Your task to perform on an android device: Open Amazon Image 0: 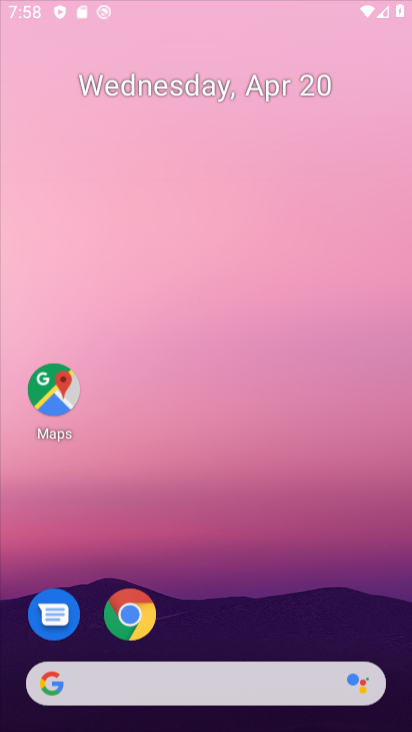
Step 0: click (287, 57)
Your task to perform on an android device: Open Amazon Image 1: 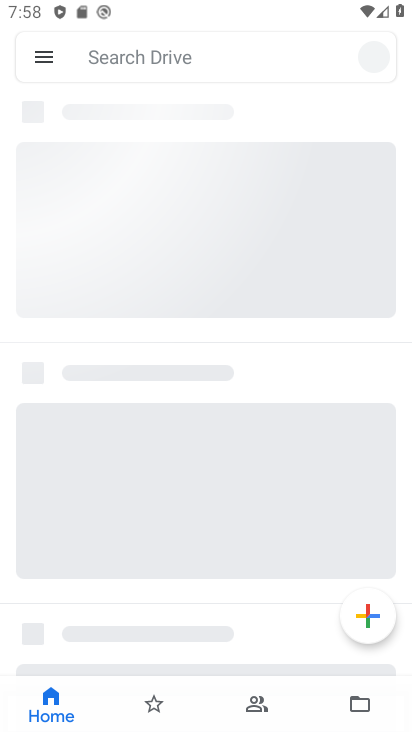
Step 1: press home button
Your task to perform on an android device: Open Amazon Image 2: 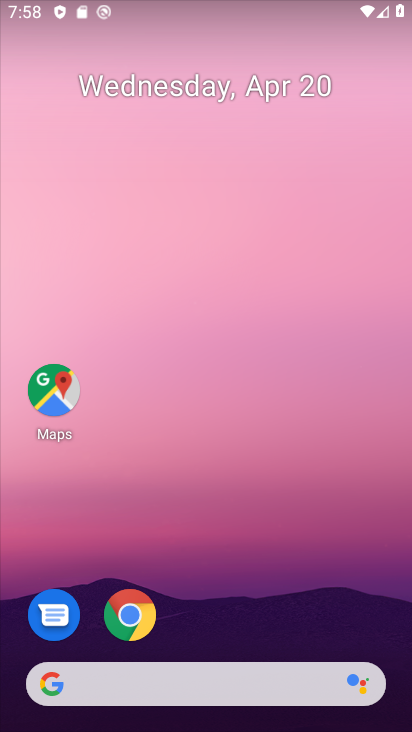
Step 2: click (133, 611)
Your task to perform on an android device: Open Amazon Image 3: 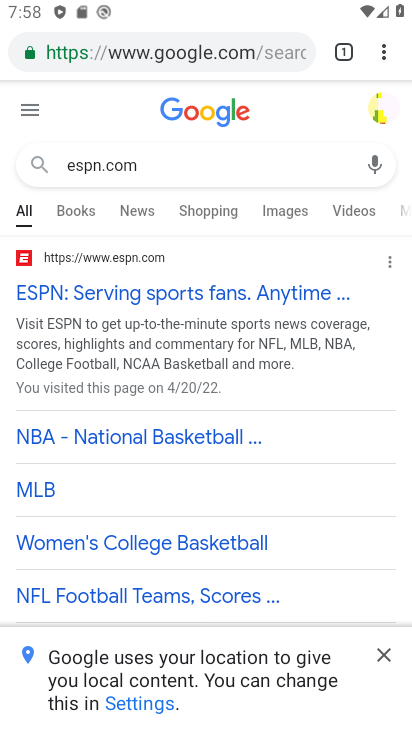
Step 3: click (297, 51)
Your task to perform on an android device: Open Amazon Image 4: 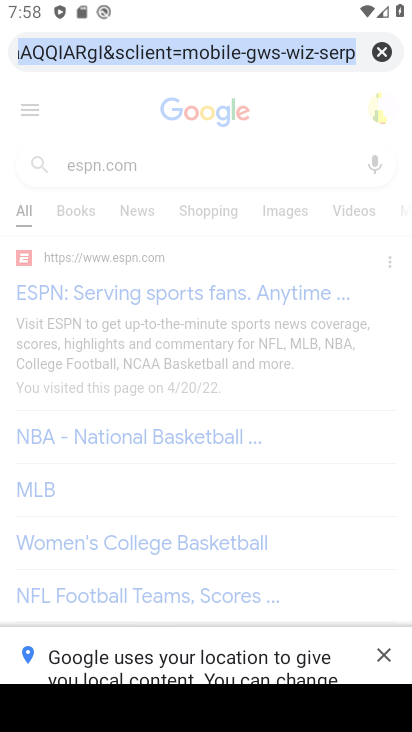
Step 4: click (378, 57)
Your task to perform on an android device: Open Amazon Image 5: 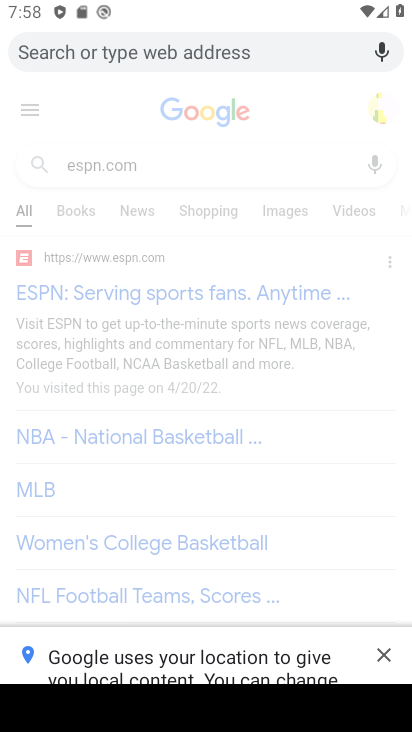
Step 5: click (344, 47)
Your task to perform on an android device: Open Amazon Image 6: 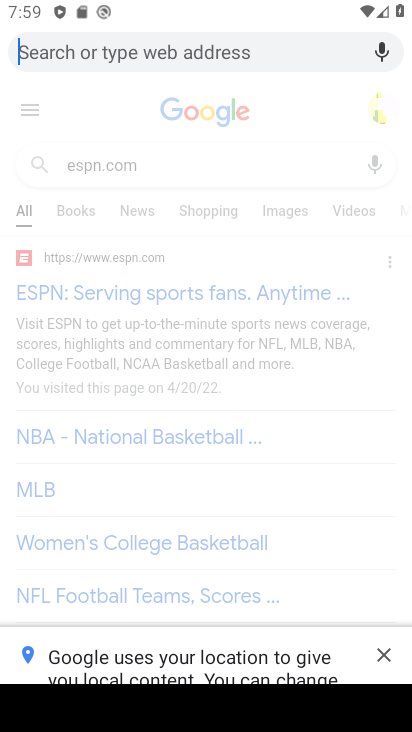
Step 6: type "Amazon"
Your task to perform on an android device: Open Amazon Image 7: 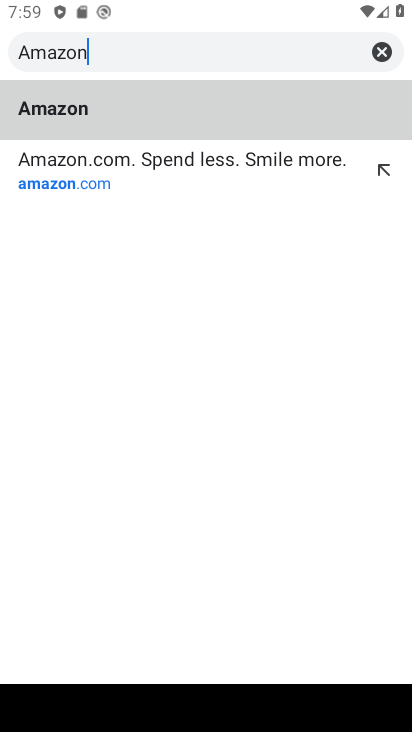
Step 7: click (211, 163)
Your task to perform on an android device: Open Amazon Image 8: 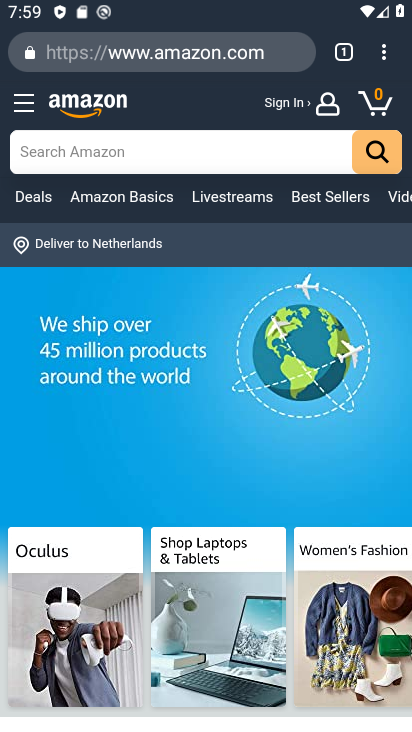
Step 8: task complete